Your task to perform on an android device: Turn off the flashlight Image 0: 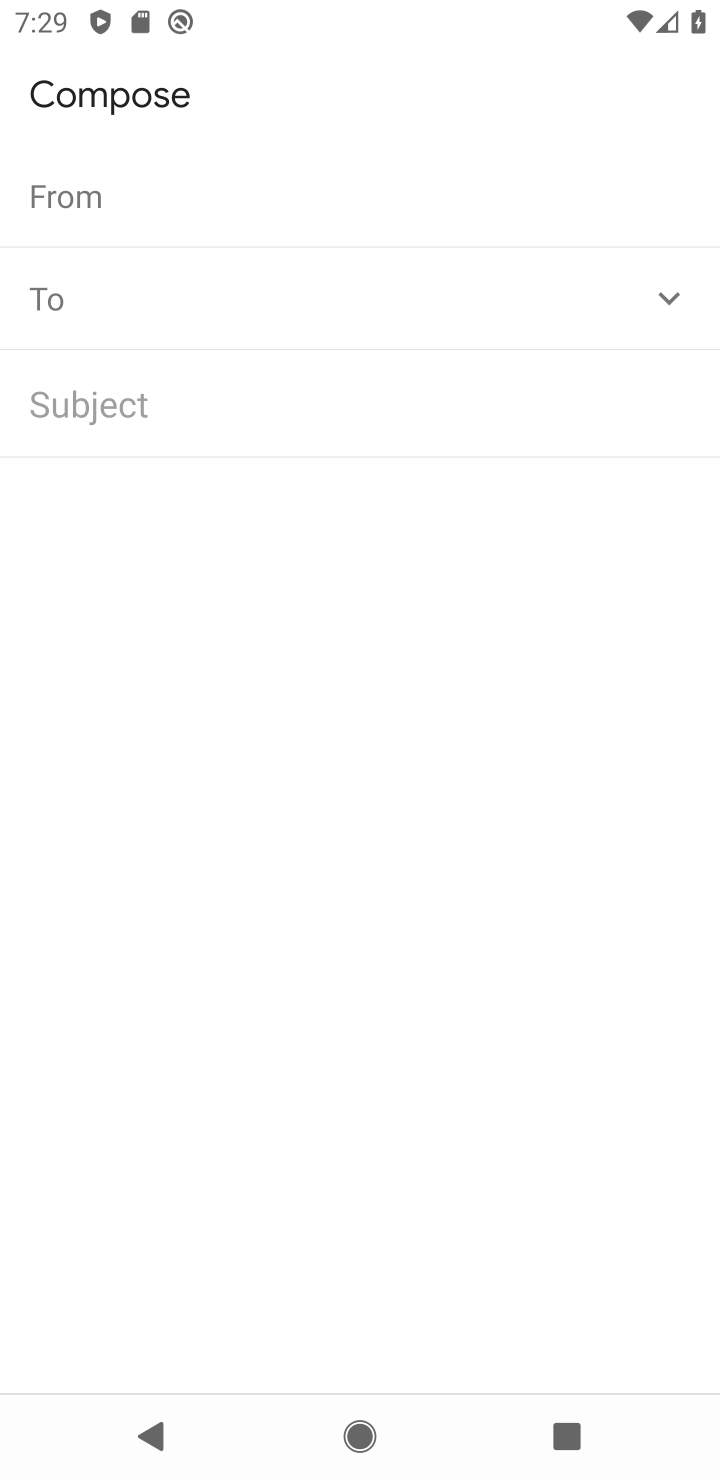
Step 0: press home button
Your task to perform on an android device: Turn off the flashlight Image 1: 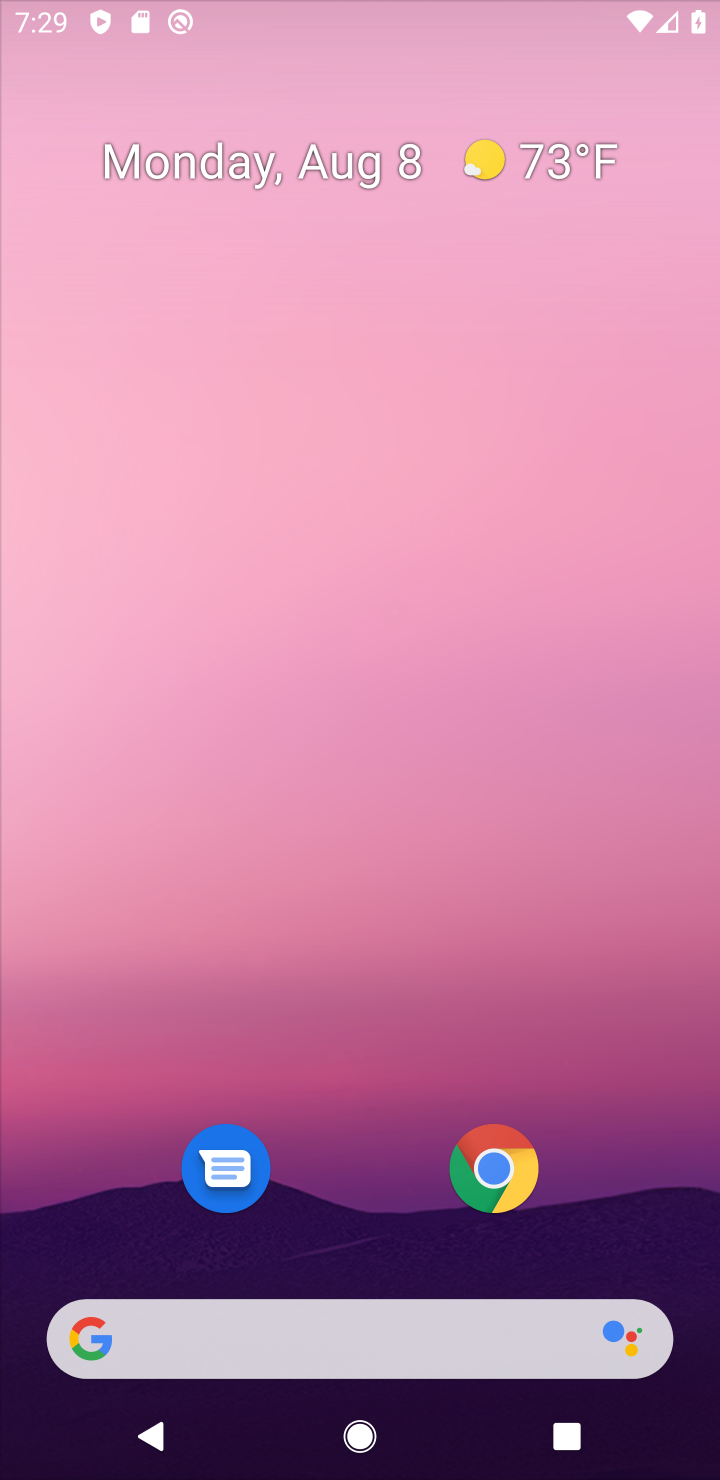
Step 1: task complete